Your task to perform on an android device: Search for pizza restaurants on Maps Image 0: 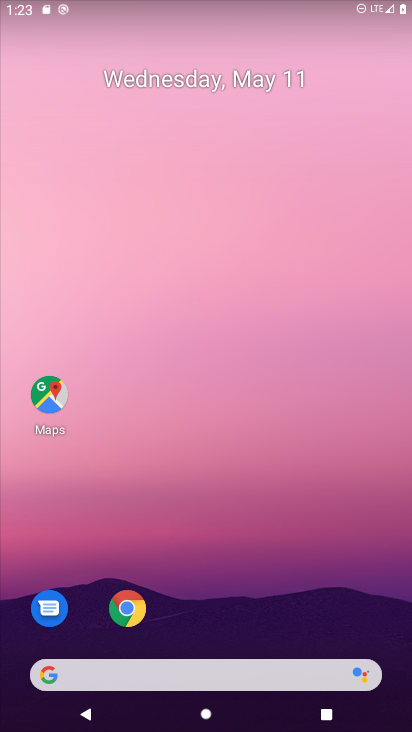
Step 0: drag from (261, 570) to (186, 56)
Your task to perform on an android device: Search for pizza restaurants on Maps Image 1: 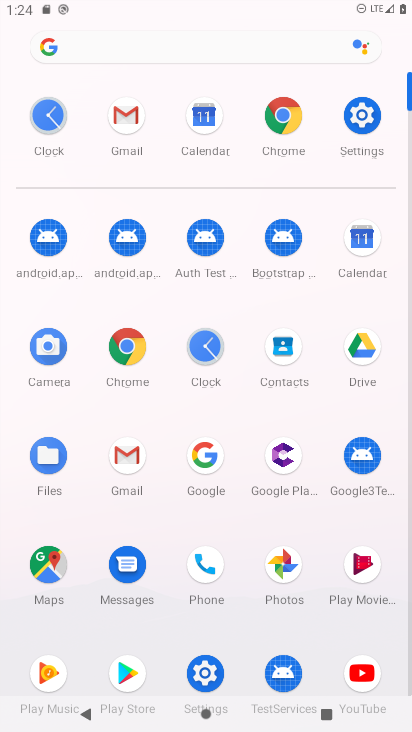
Step 1: click (45, 552)
Your task to perform on an android device: Search for pizza restaurants on Maps Image 2: 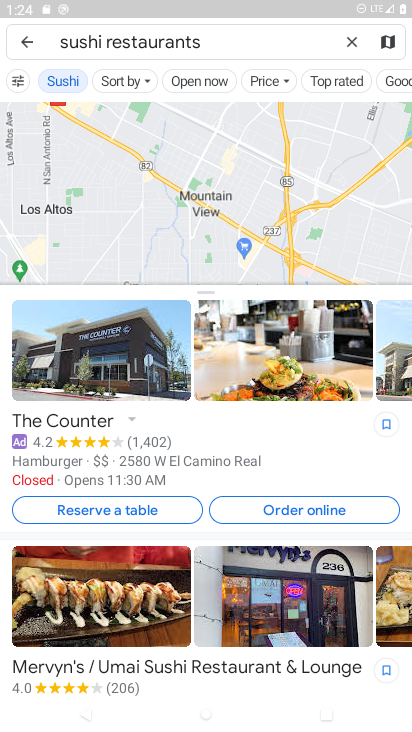
Step 2: click (352, 36)
Your task to perform on an android device: Search for pizza restaurants on Maps Image 3: 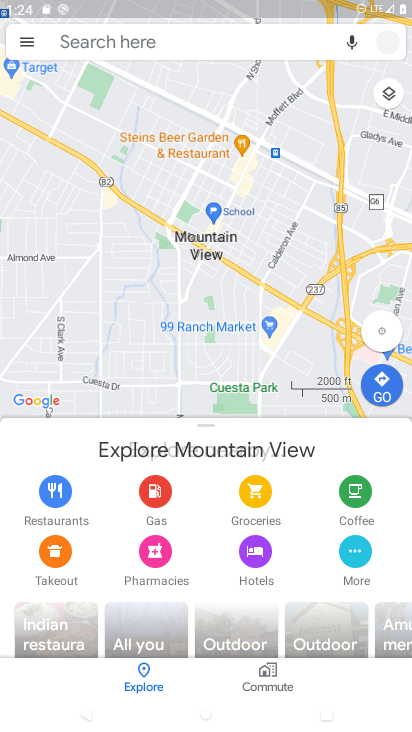
Step 3: click (196, 42)
Your task to perform on an android device: Search for pizza restaurants on Maps Image 4: 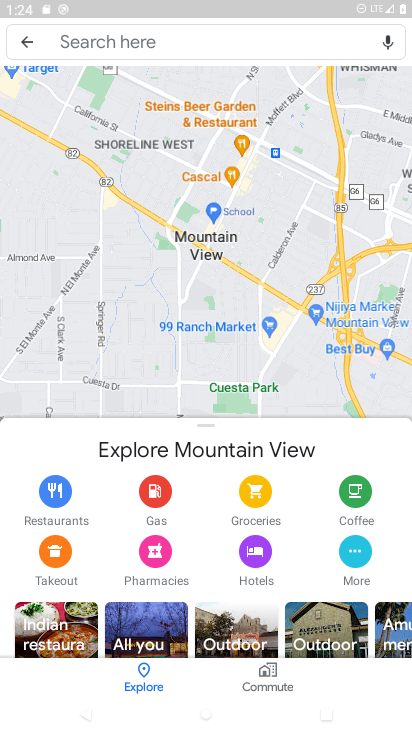
Step 4: click (182, 37)
Your task to perform on an android device: Search for pizza restaurants on Maps Image 5: 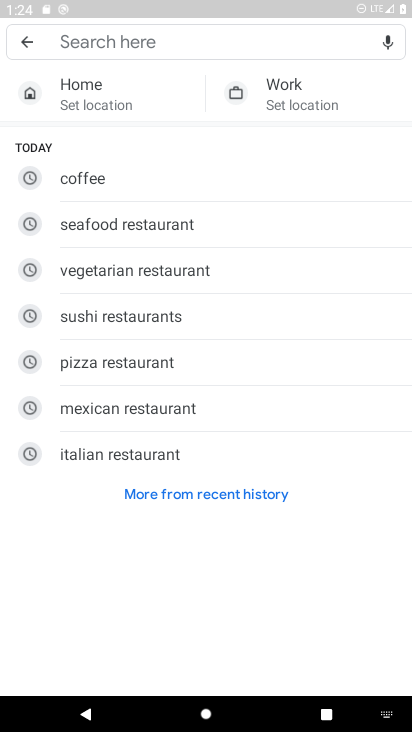
Step 5: click (115, 350)
Your task to perform on an android device: Search for pizza restaurants on Maps Image 6: 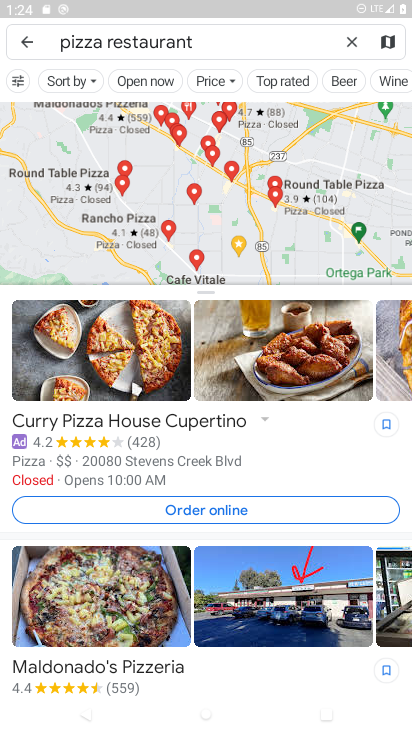
Step 6: task complete